Your task to perform on an android device: Search for seafood restaurants on Google Maps Image 0: 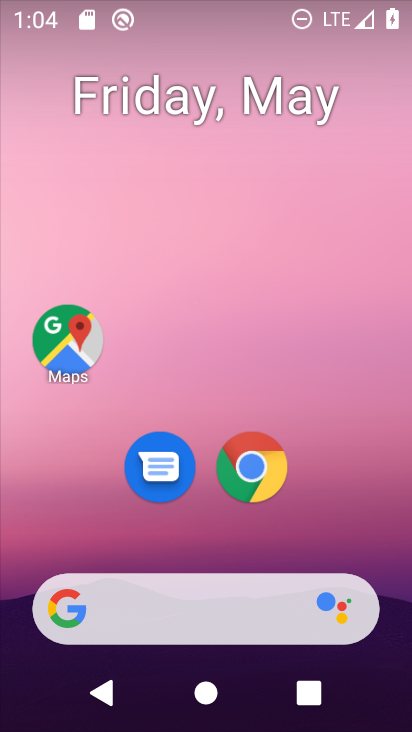
Step 0: drag from (205, 593) to (316, 17)
Your task to perform on an android device: Search for seafood restaurants on Google Maps Image 1: 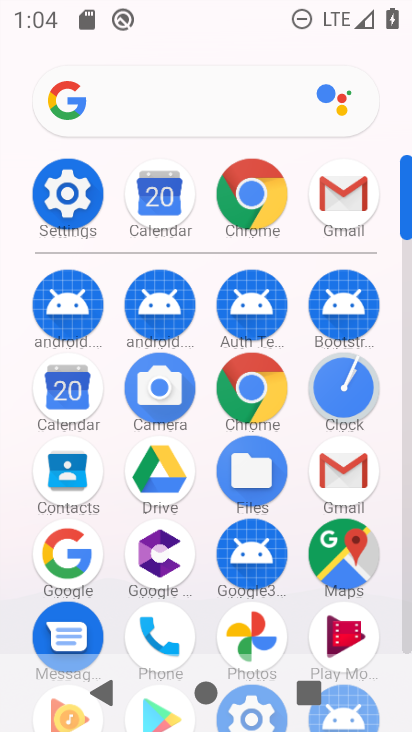
Step 1: click (346, 554)
Your task to perform on an android device: Search for seafood restaurants on Google Maps Image 2: 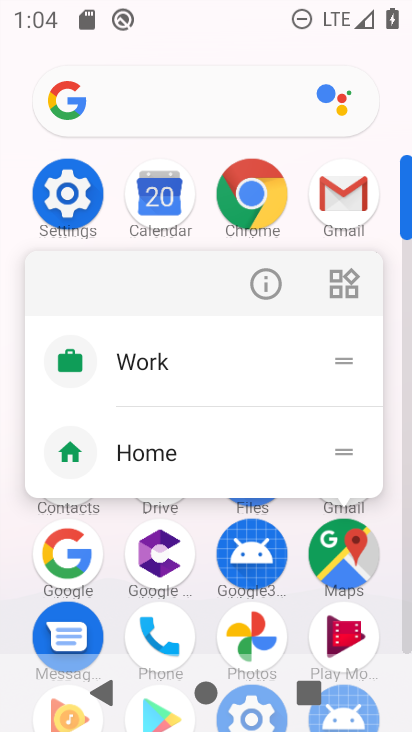
Step 2: click (346, 554)
Your task to perform on an android device: Search for seafood restaurants on Google Maps Image 3: 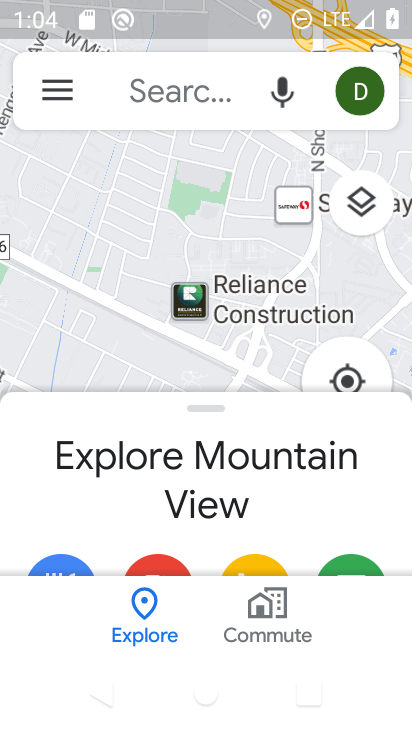
Step 3: click (158, 64)
Your task to perform on an android device: Search for seafood restaurants on Google Maps Image 4: 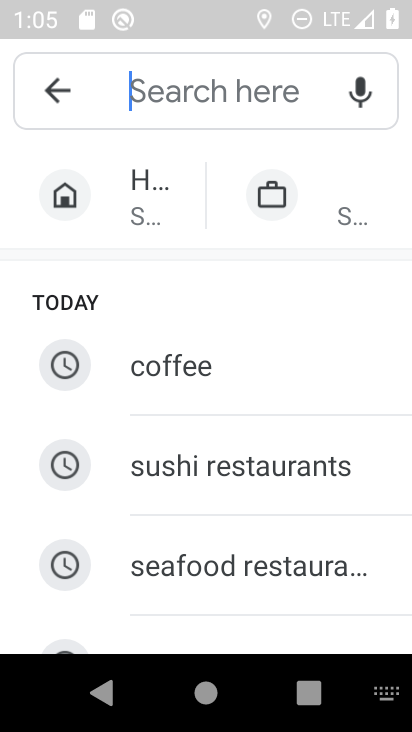
Step 4: click (261, 550)
Your task to perform on an android device: Search for seafood restaurants on Google Maps Image 5: 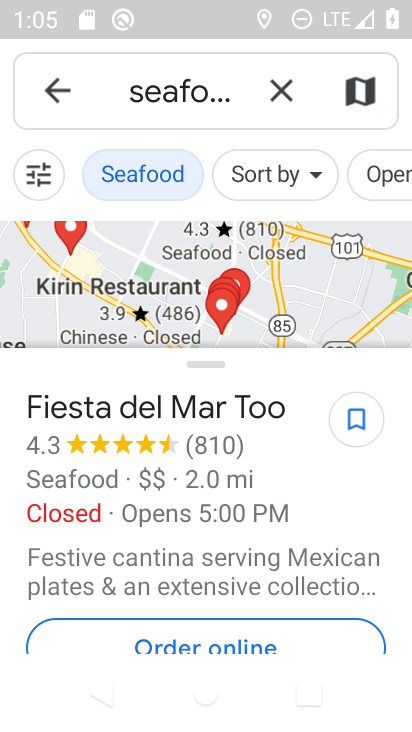
Step 5: task complete